Your task to perform on an android device: turn on priority inbox in the gmail app Image 0: 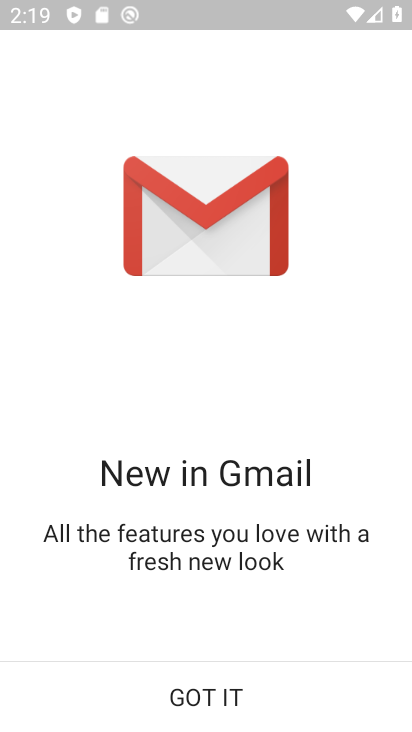
Step 0: click (252, 695)
Your task to perform on an android device: turn on priority inbox in the gmail app Image 1: 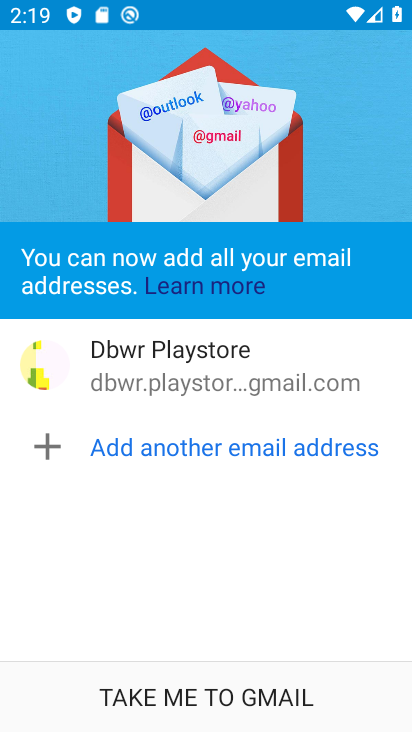
Step 1: click (251, 695)
Your task to perform on an android device: turn on priority inbox in the gmail app Image 2: 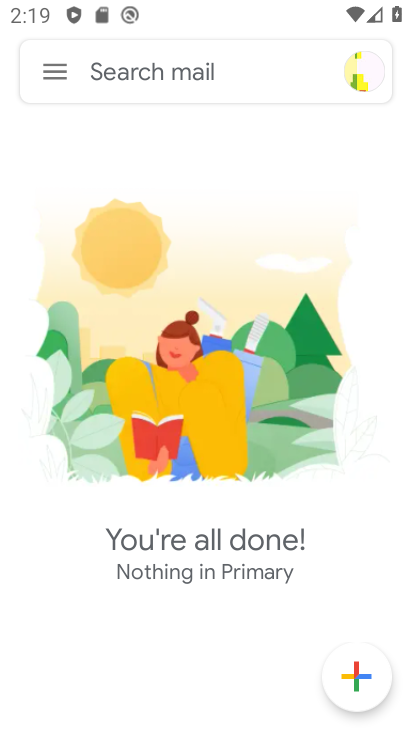
Step 2: click (66, 69)
Your task to perform on an android device: turn on priority inbox in the gmail app Image 3: 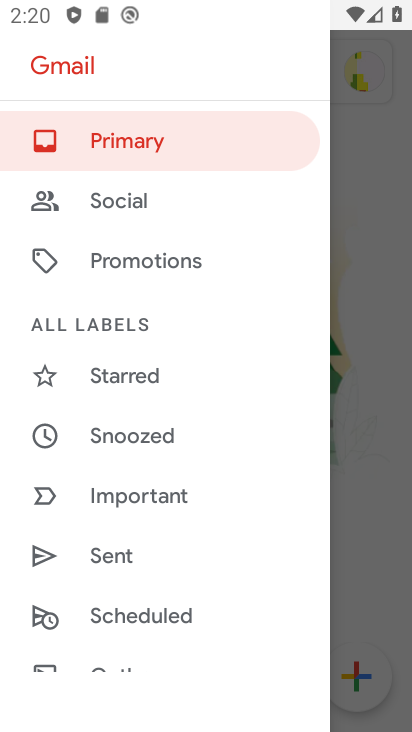
Step 3: drag from (150, 584) to (268, 64)
Your task to perform on an android device: turn on priority inbox in the gmail app Image 4: 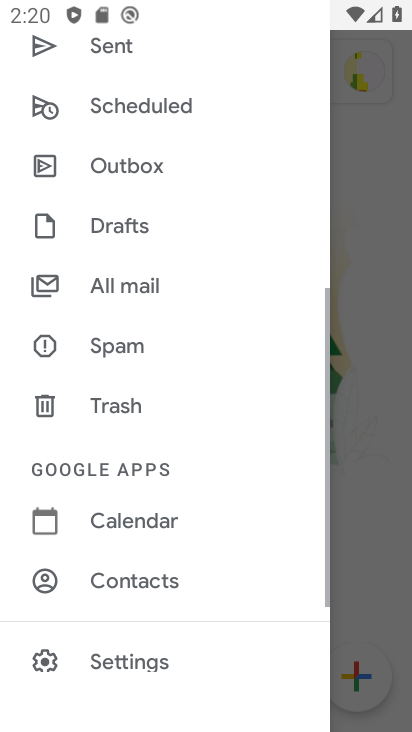
Step 4: drag from (231, 597) to (249, 313)
Your task to perform on an android device: turn on priority inbox in the gmail app Image 5: 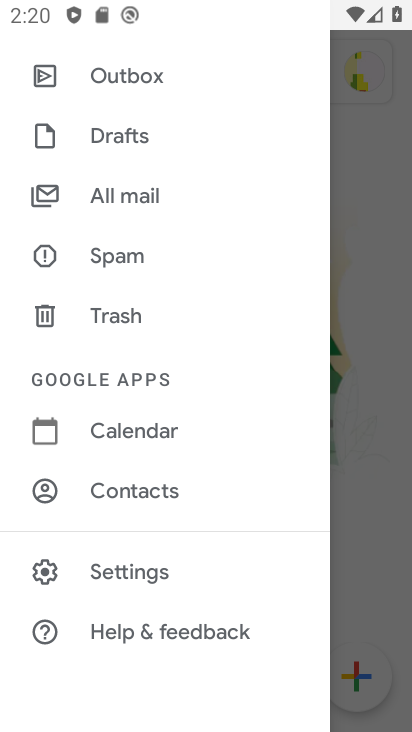
Step 5: click (178, 572)
Your task to perform on an android device: turn on priority inbox in the gmail app Image 6: 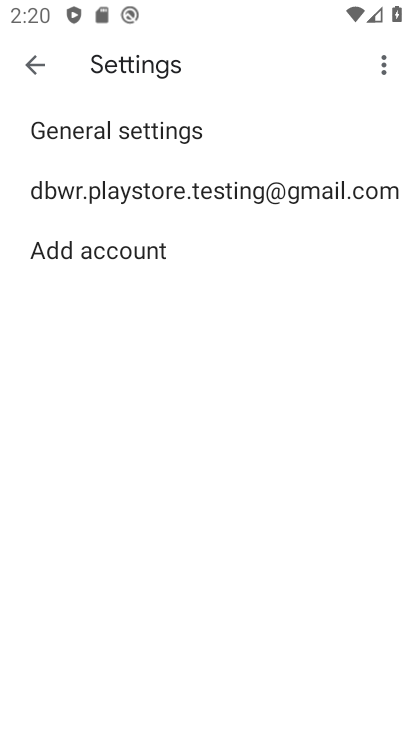
Step 6: click (333, 198)
Your task to perform on an android device: turn on priority inbox in the gmail app Image 7: 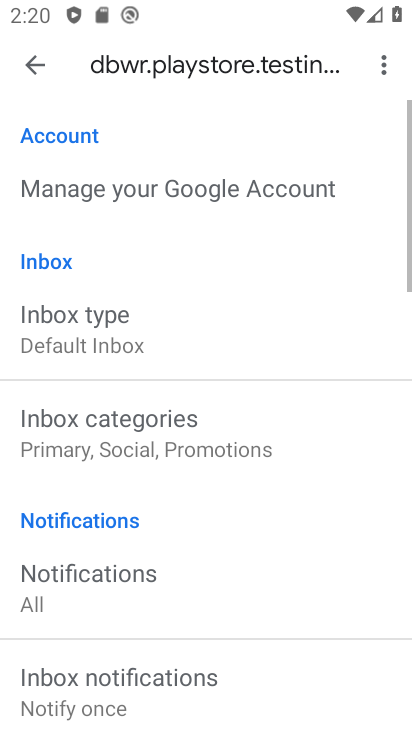
Step 7: drag from (295, 648) to (330, 190)
Your task to perform on an android device: turn on priority inbox in the gmail app Image 8: 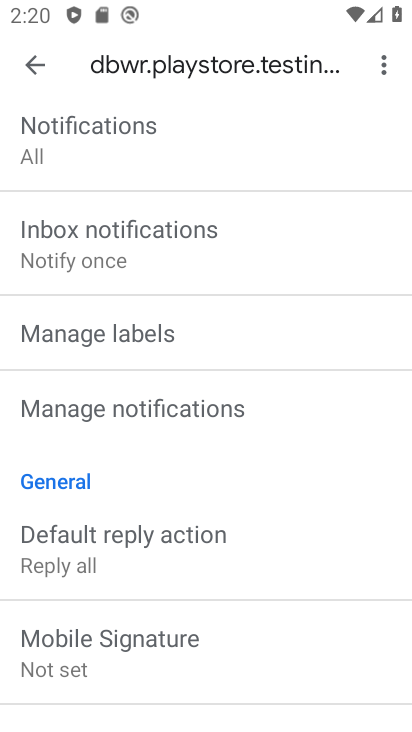
Step 8: drag from (307, 283) to (288, 723)
Your task to perform on an android device: turn on priority inbox in the gmail app Image 9: 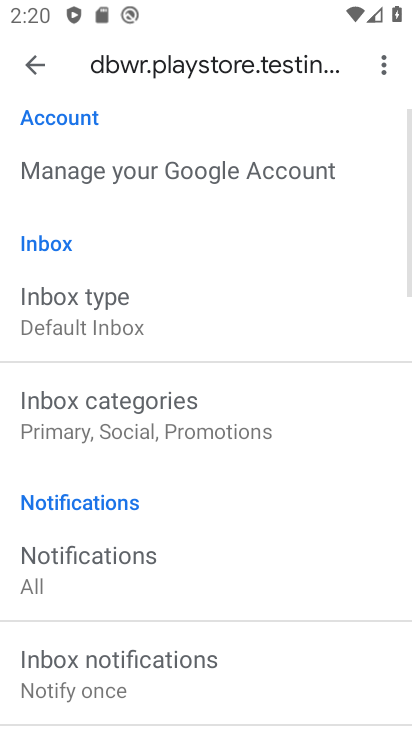
Step 9: click (127, 300)
Your task to perform on an android device: turn on priority inbox in the gmail app Image 10: 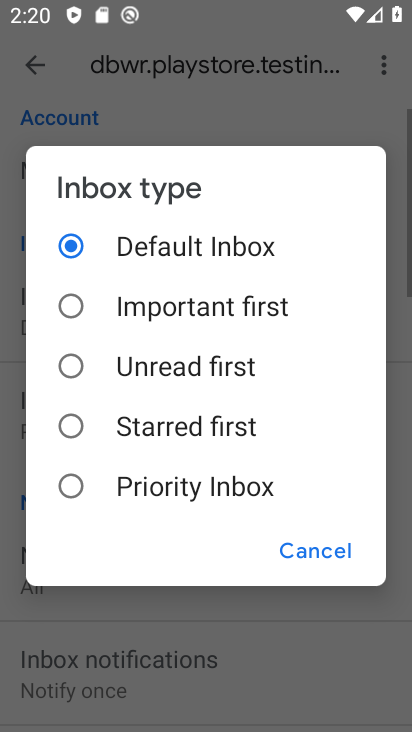
Step 10: click (155, 472)
Your task to perform on an android device: turn on priority inbox in the gmail app Image 11: 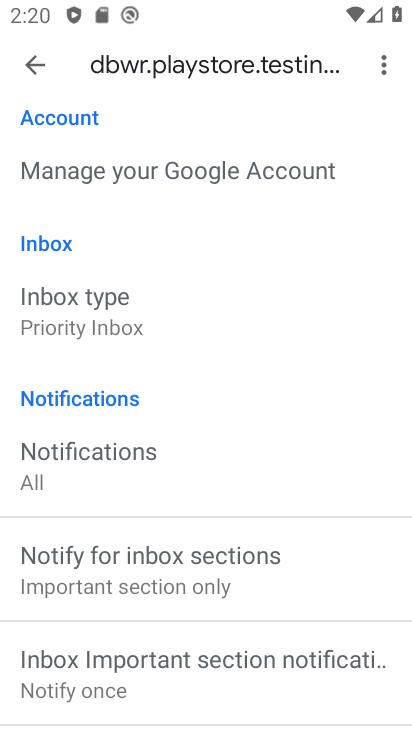
Step 11: task complete